Your task to perform on an android device: turn off priority inbox in the gmail app Image 0: 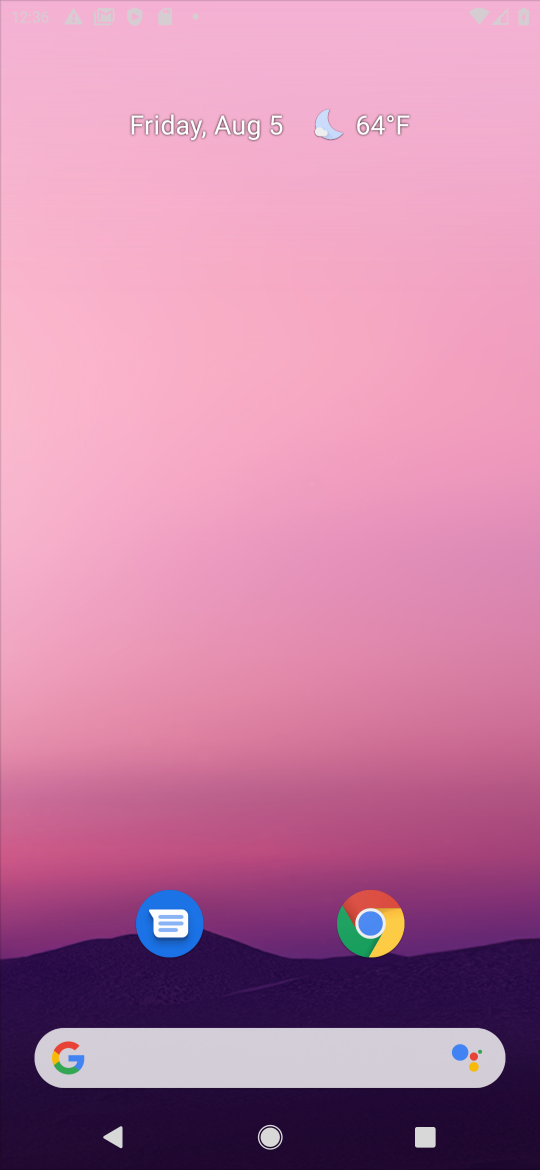
Step 0: press home button
Your task to perform on an android device: turn off priority inbox in the gmail app Image 1: 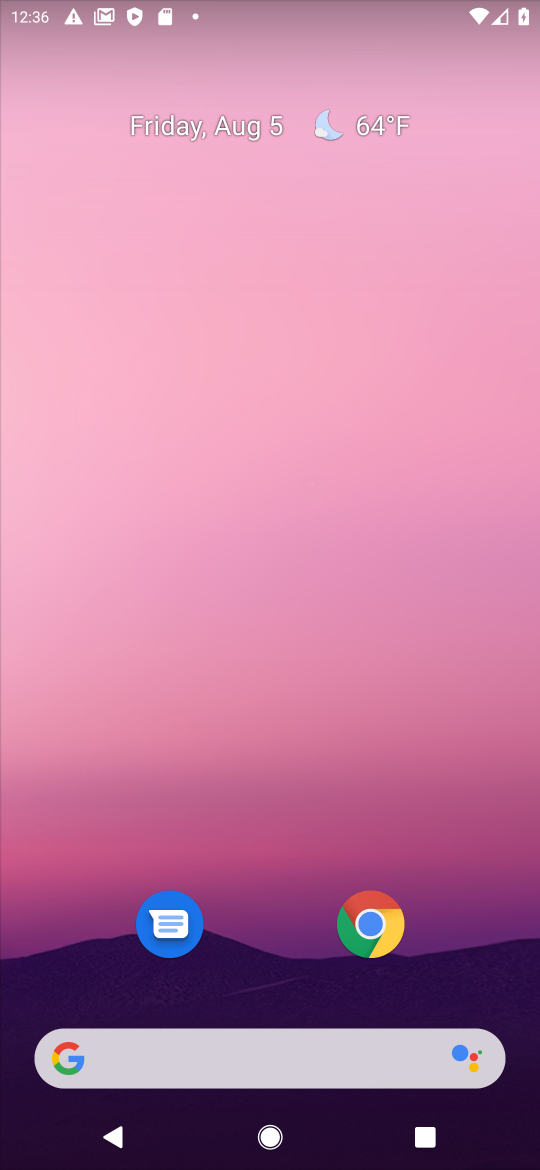
Step 1: drag from (262, 994) to (207, 244)
Your task to perform on an android device: turn off priority inbox in the gmail app Image 2: 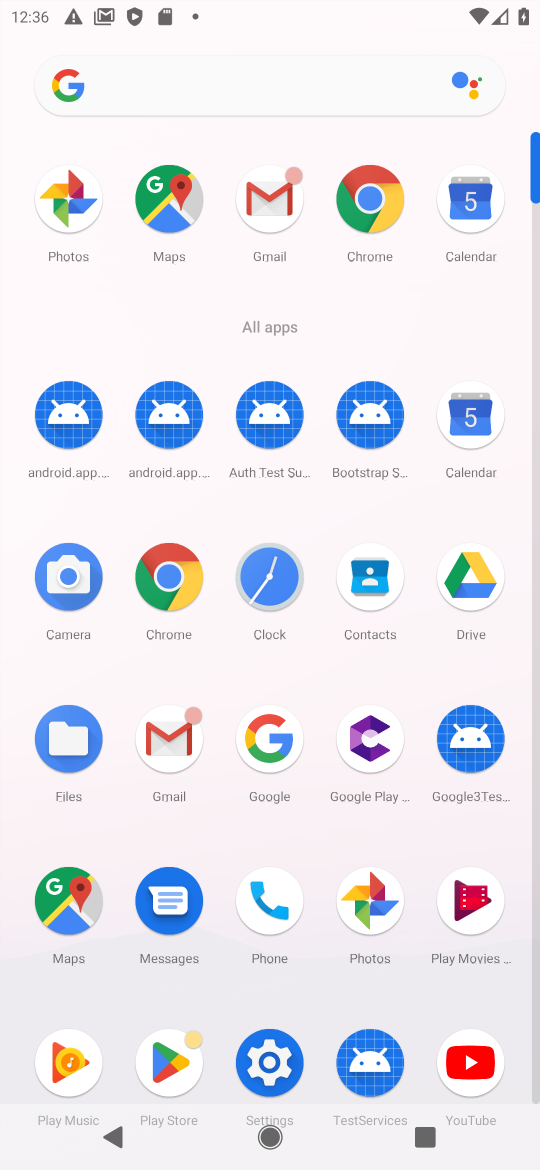
Step 2: click (261, 198)
Your task to perform on an android device: turn off priority inbox in the gmail app Image 3: 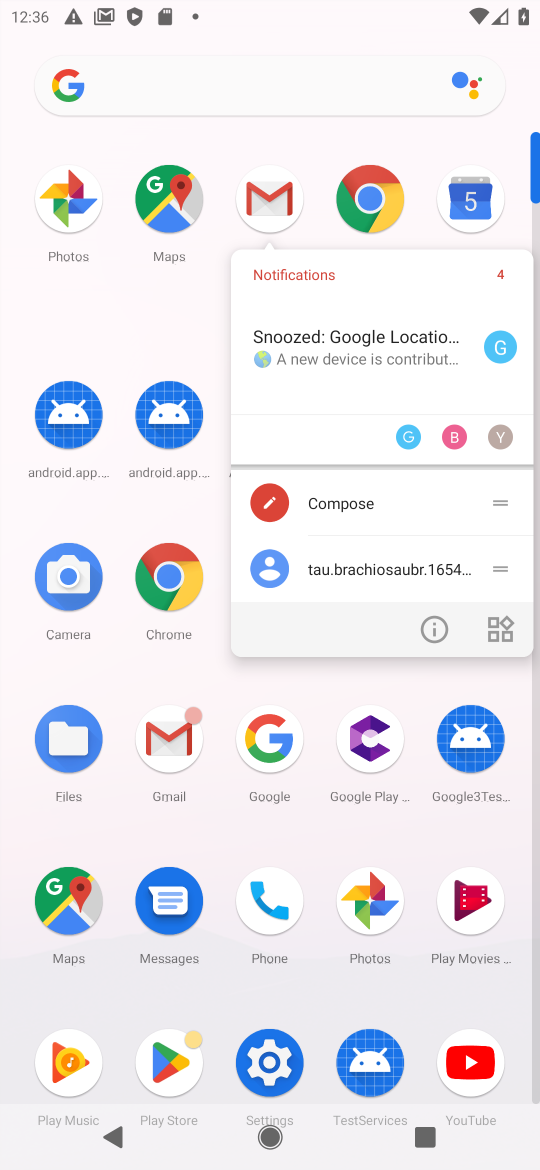
Step 3: click (261, 197)
Your task to perform on an android device: turn off priority inbox in the gmail app Image 4: 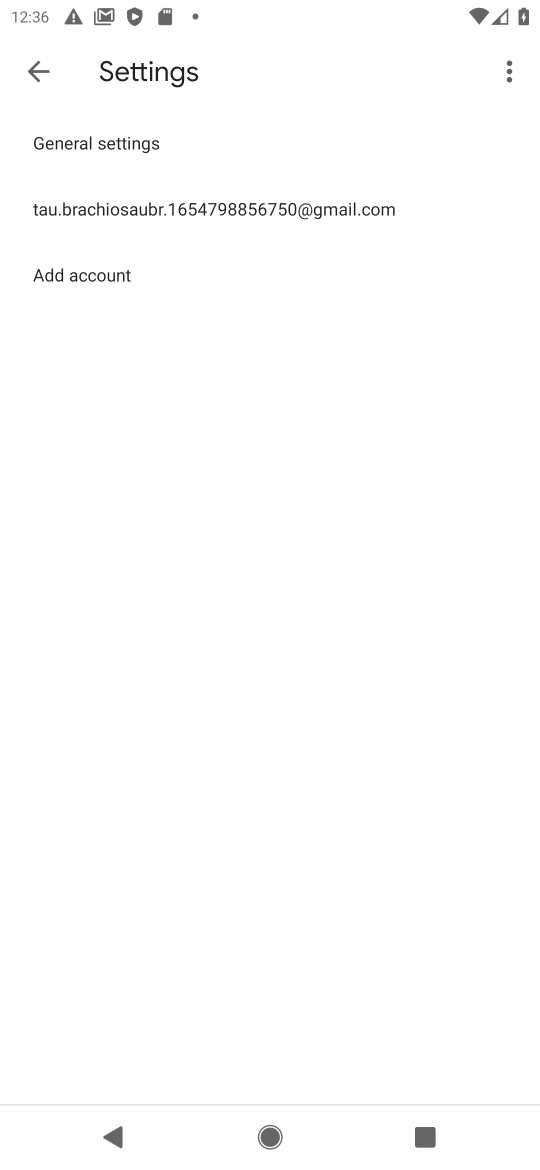
Step 4: click (178, 204)
Your task to perform on an android device: turn off priority inbox in the gmail app Image 5: 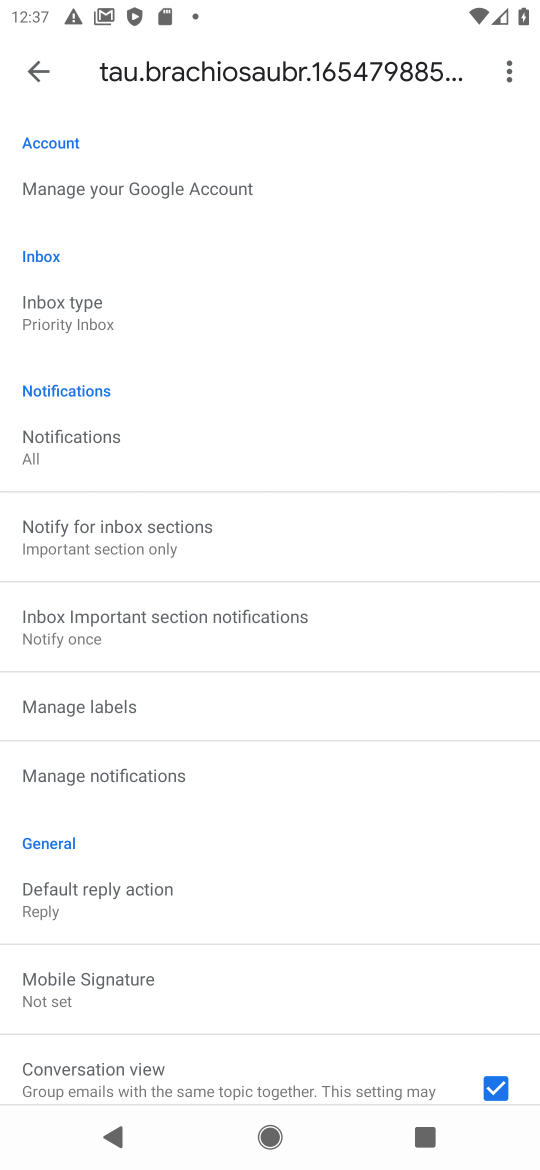
Step 5: click (60, 303)
Your task to perform on an android device: turn off priority inbox in the gmail app Image 6: 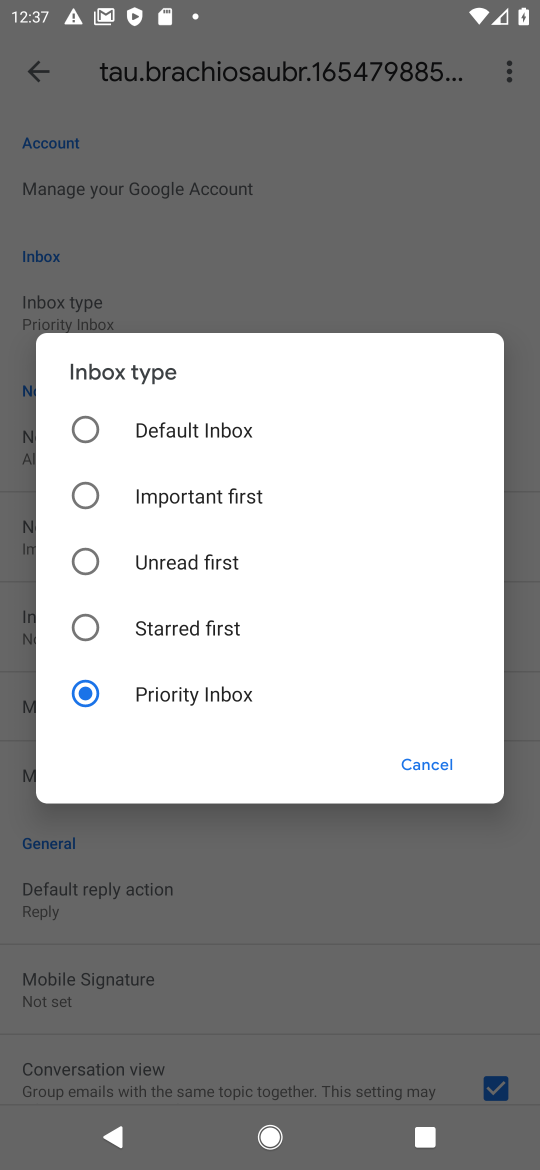
Step 6: click (85, 424)
Your task to perform on an android device: turn off priority inbox in the gmail app Image 7: 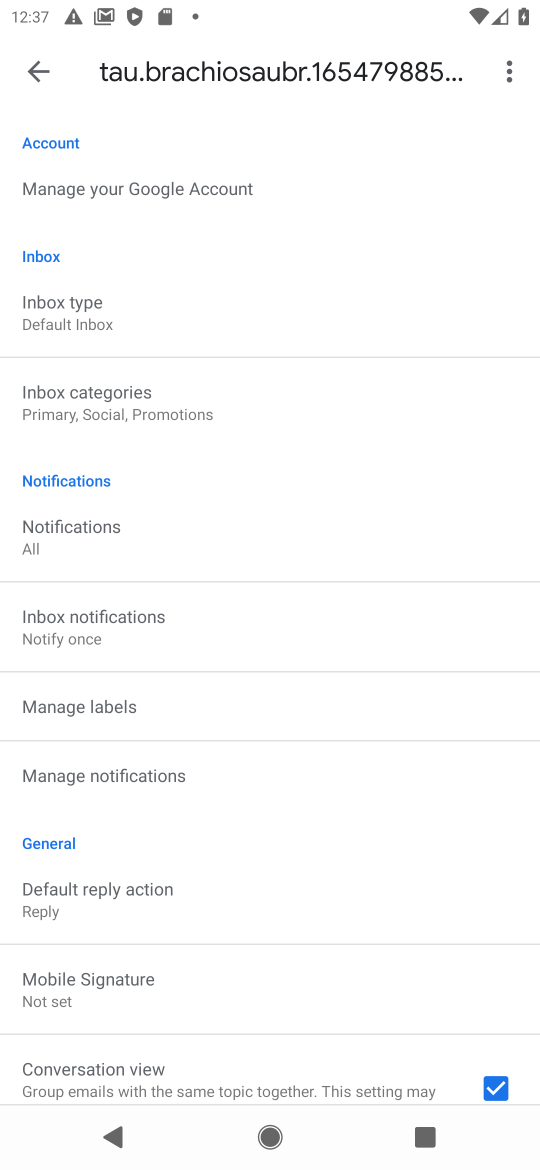
Step 7: task complete